Your task to perform on an android device: Open the Play Movies app and select the watchlist tab. Image 0: 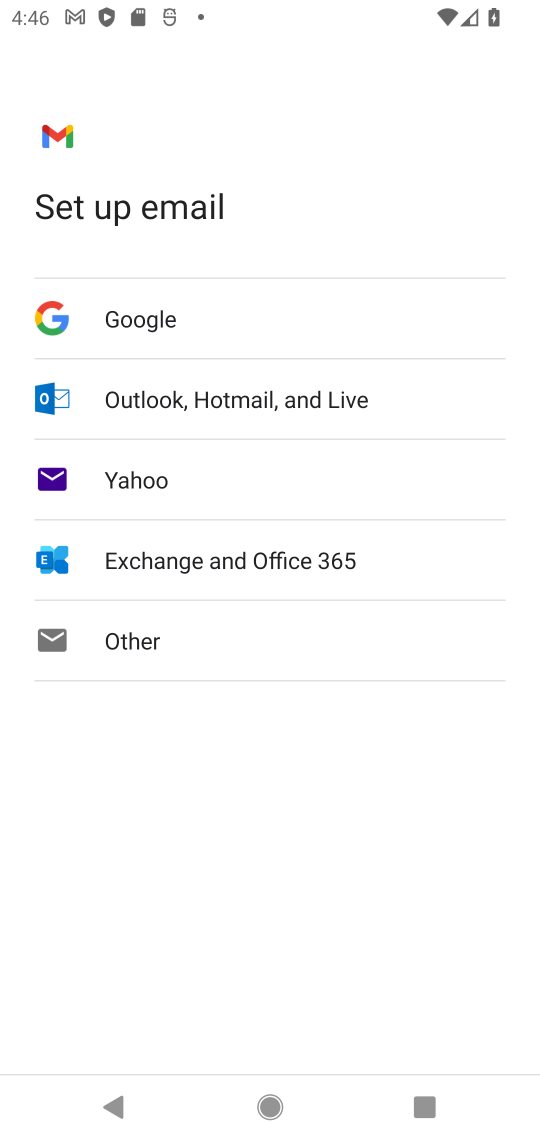
Step 0: press home button
Your task to perform on an android device: Open the Play Movies app and select the watchlist tab. Image 1: 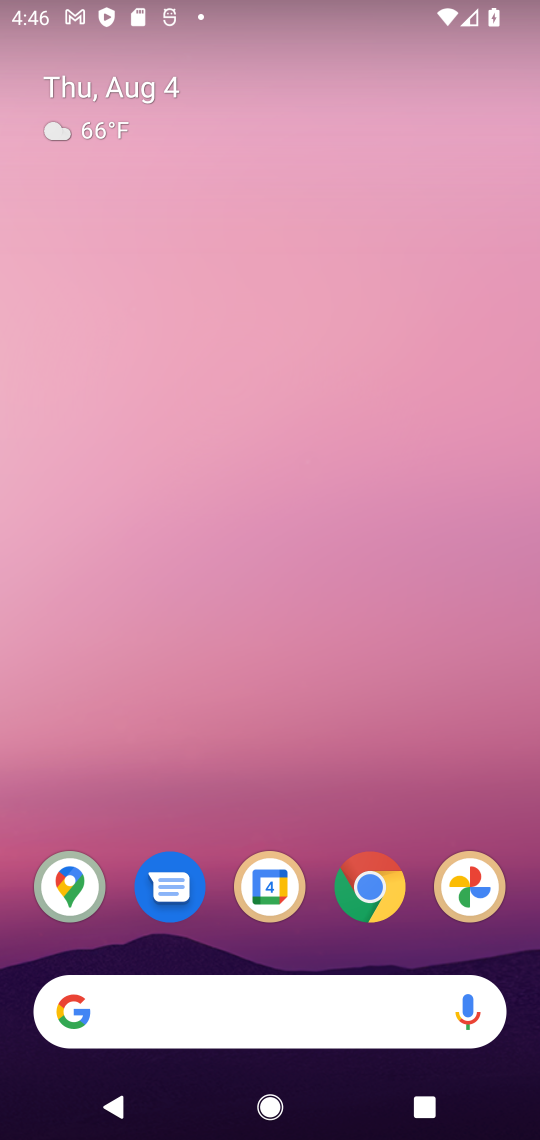
Step 1: task complete